Your task to perform on an android device: Search for Mexican restaurants on Maps Image 0: 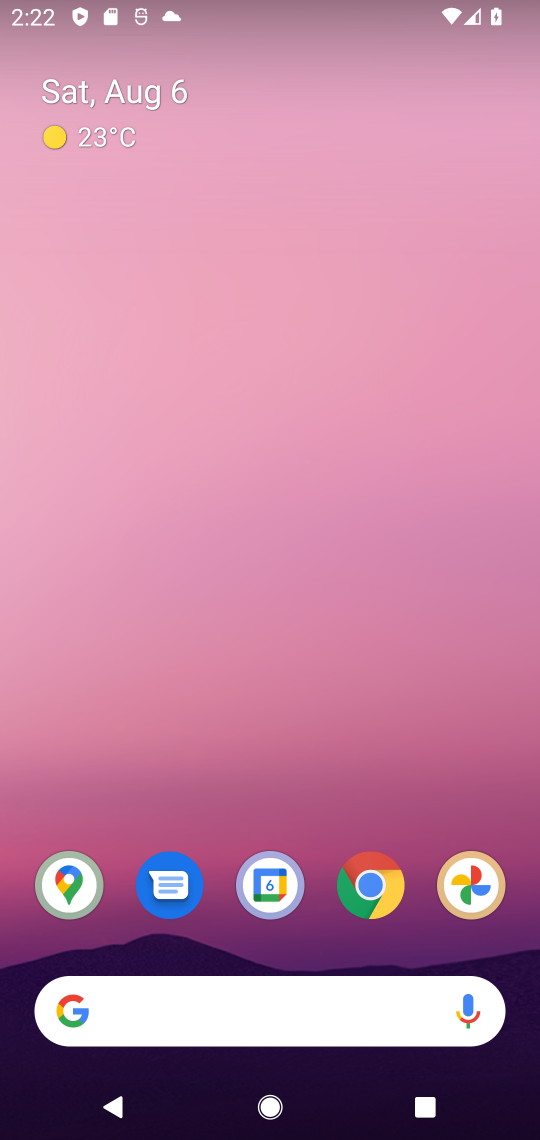
Step 0: drag from (478, 956) to (174, 13)
Your task to perform on an android device: Search for Mexican restaurants on Maps Image 1: 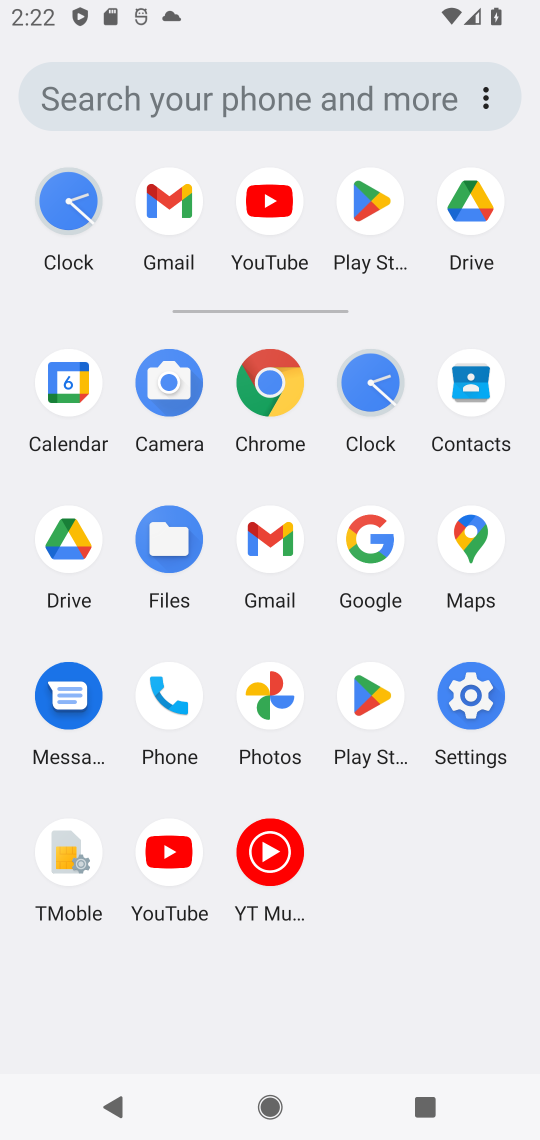
Step 1: click (473, 525)
Your task to perform on an android device: Search for Mexican restaurants on Maps Image 2: 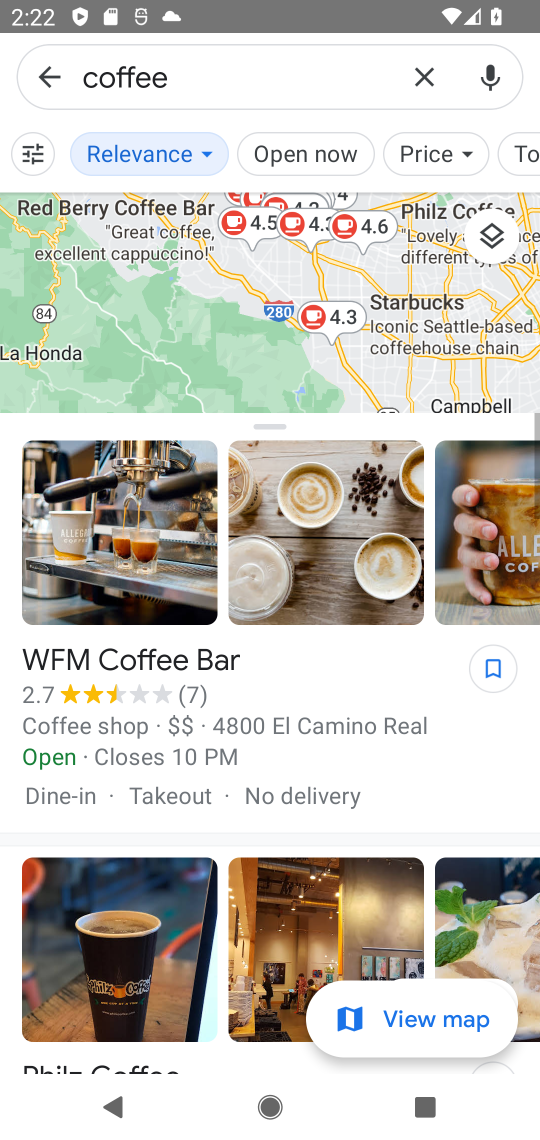
Step 2: click (425, 74)
Your task to perform on an android device: Search for Mexican restaurants on Maps Image 3: 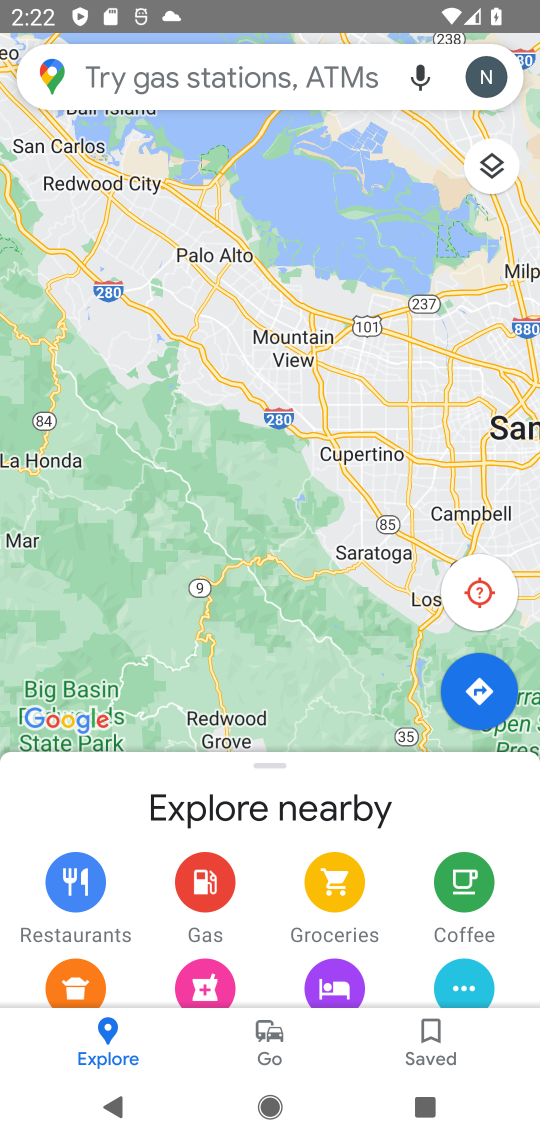
Step 3: click (159, 92)
Your task to perform on an android device: Search for Mexican restaurants on Maps Image 4: 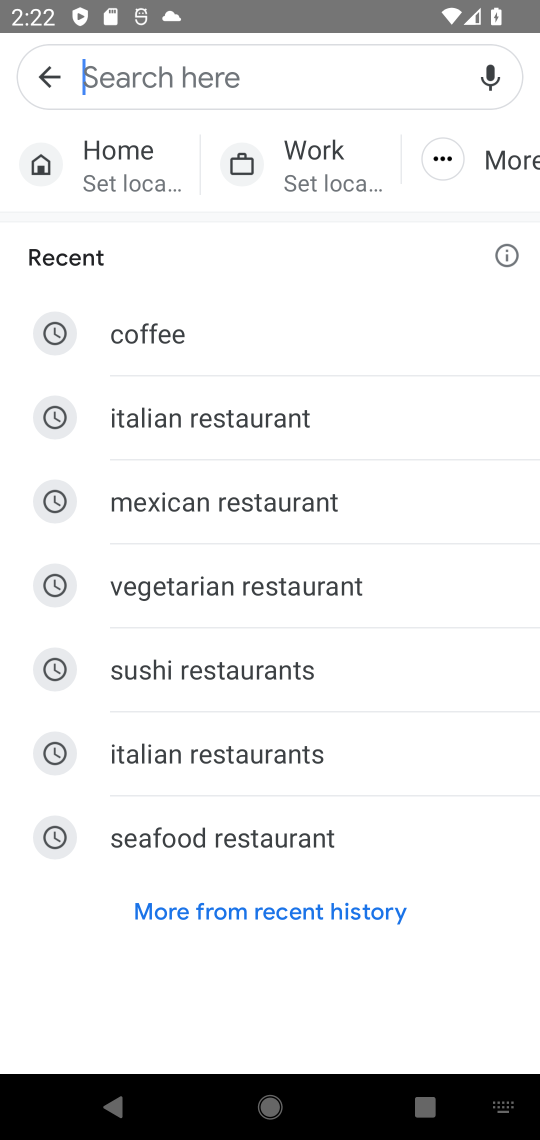
Step 4: type "Mexican restaurants"
Your task to perform on an android device: Search for Mexican restaurants on Maps Image 5: 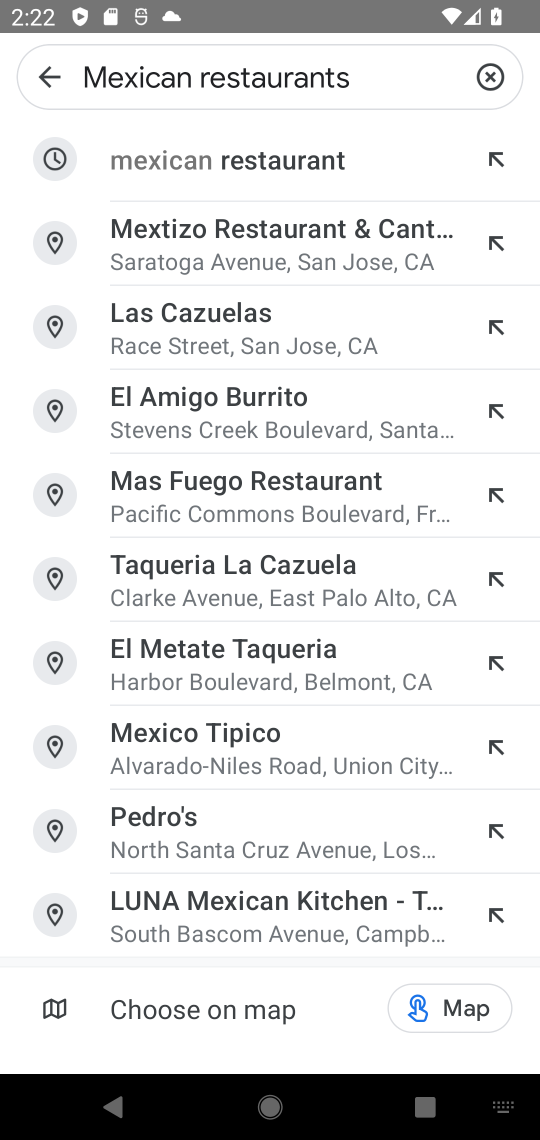
Step 5: click (225, 186)
Your task to perform on an android device: Search for Mexican restaurants on Maps Image 6: 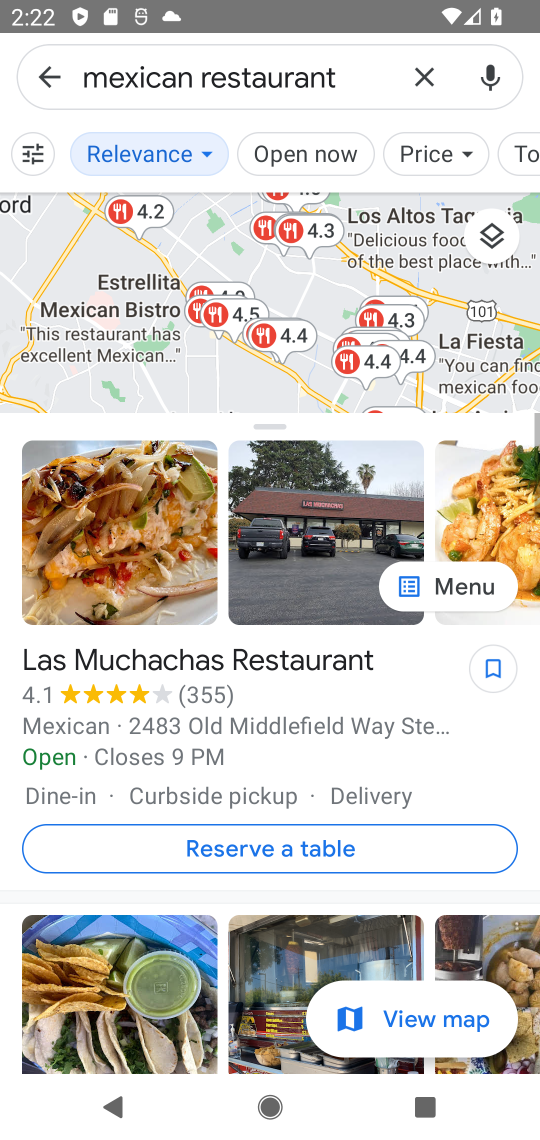
Step 6: task complete